Your task to perform on an android device: set the timer Image 0: 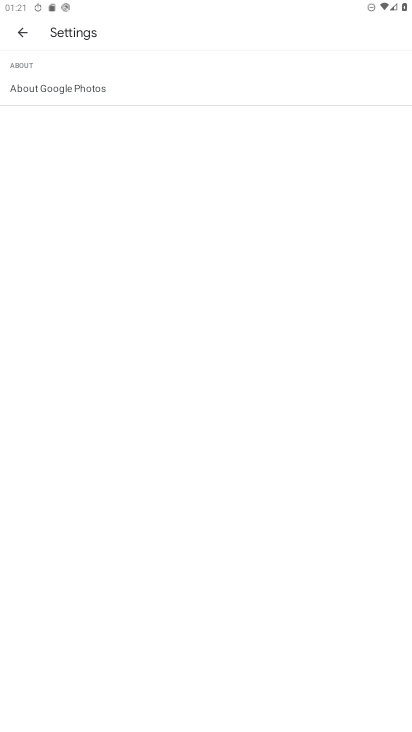
Step 0: press home button
Your task to perform on an android device: set the timer Image 1: 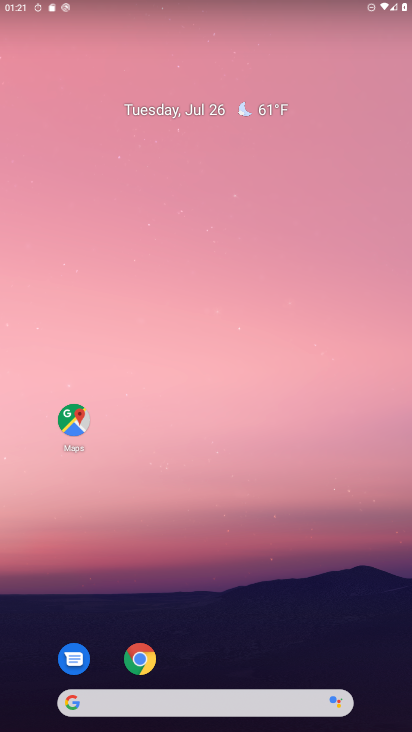
Step 1: drag from (101, 643) to (278, 347)
Your task to perform on an android device: set the timer Image 2: 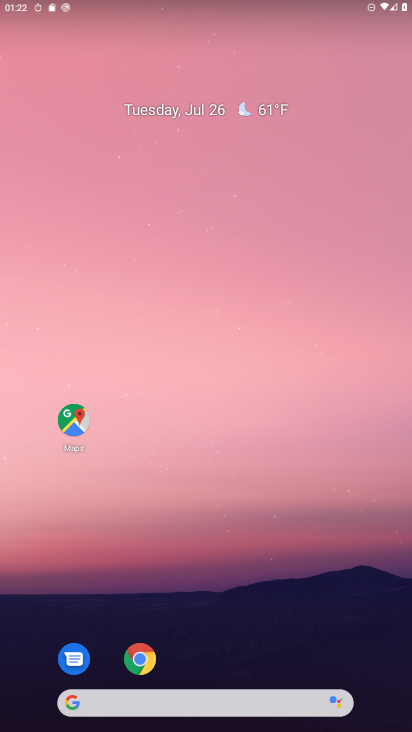
Step 2: drag from (54, 656) to (256, 200)
Your task to perform on an android device: set the timer Image 3: 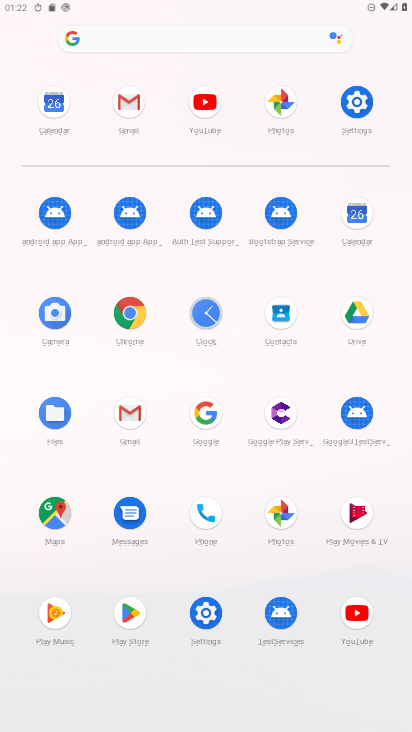
Step 3: click (216, 321)
Your task to perform on an android device: set the timer Image 4: 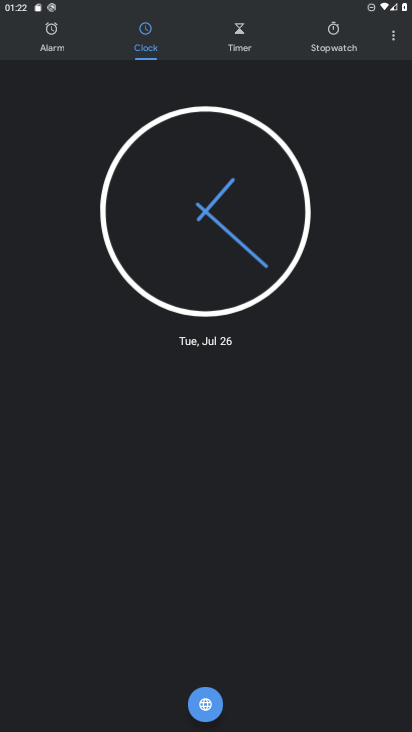
Step 4: click (237, 49)
Your task to perform on an android device: set the timer Image 5: 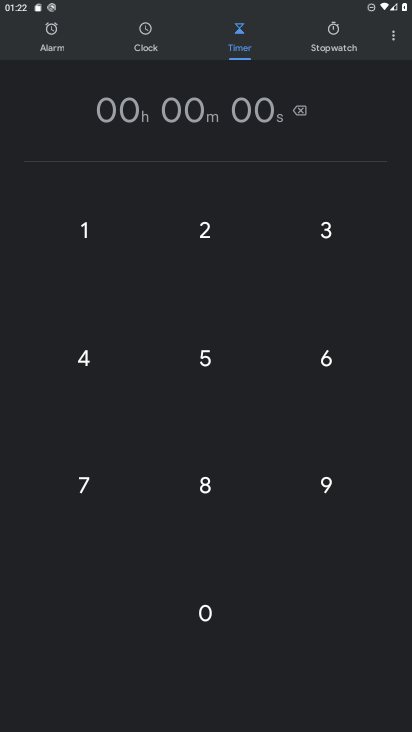
Step 5: click (200, 356)
Your task to perform on an android device: set the timer Image 6: 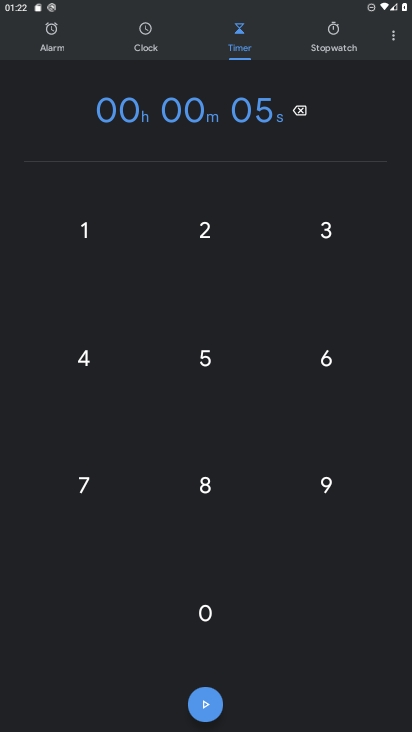
Step 6: click (115, 108)
Your task to perform on an android device: set the timer Image 7: 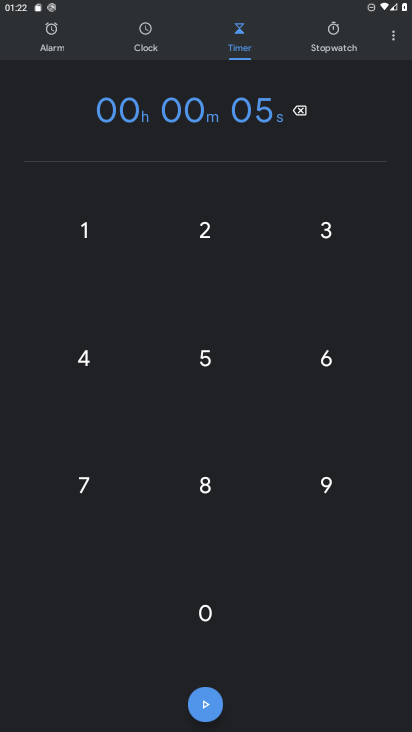
Step 7: click (83, 270)
Your task to perform on an android device: set the timer Image 8: 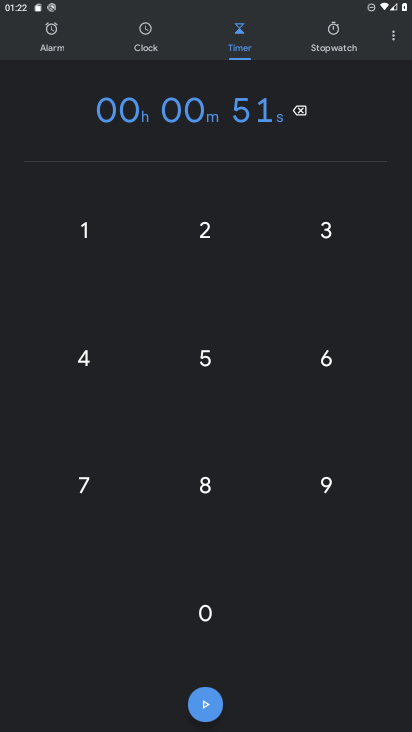
Step 8: click (47, 383)
Your task to perform on an android device: set the timer Image 9: 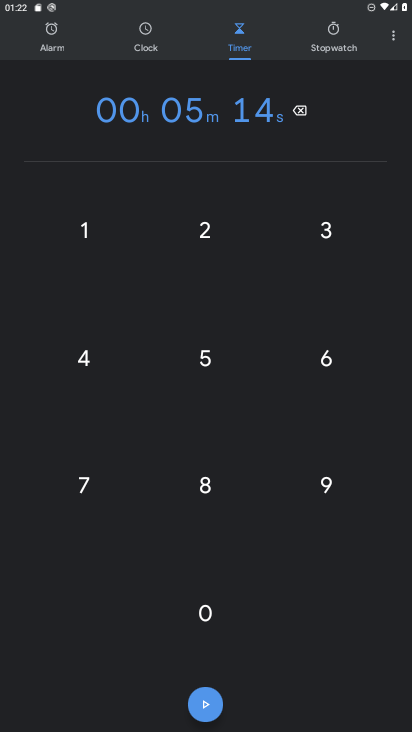
Step 9: click (117, 116)
Your task to perform on an android device: set the timer Image 10: 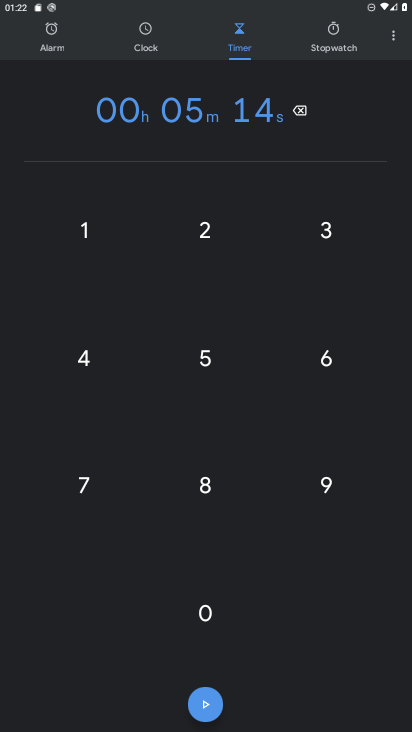
Step 10: click (209, 367)
Your task to perform on an android device: set the timer Image 11: 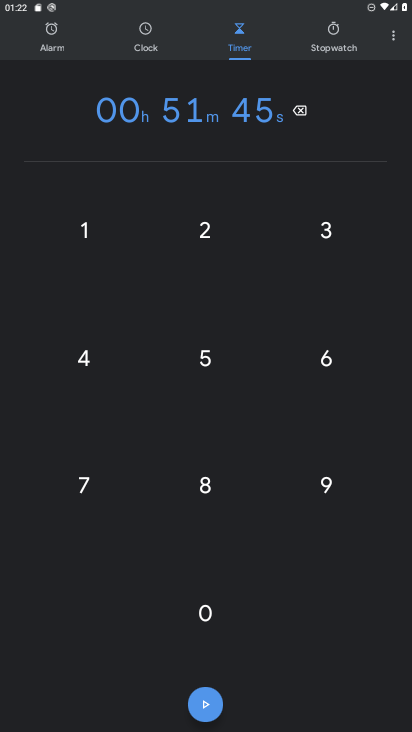
Step 11: task complete